Your task to perform on an android device: turn off smart reply in the gmail app Image 0: 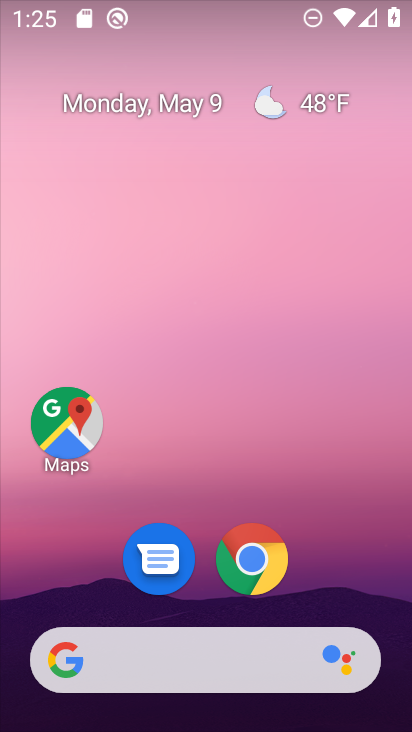
Step 0: click (212, 82)
Your task to perform on an android device: turn off smart reply in the gmail app Image 1: 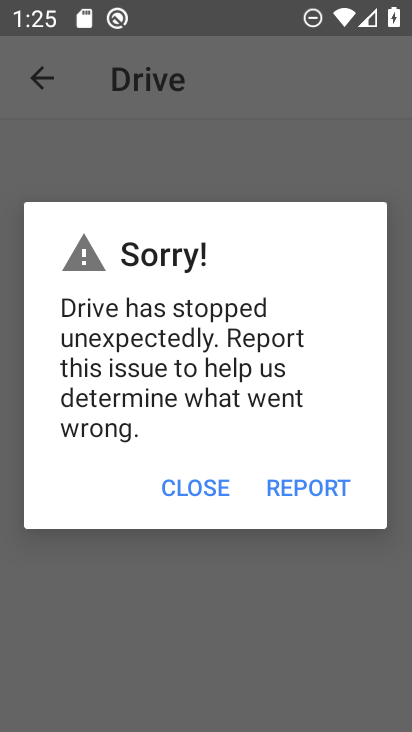
Step 1: click (173, 492)
Your task to perform on an android device: turn off smart reply in the gmail app Image 2: 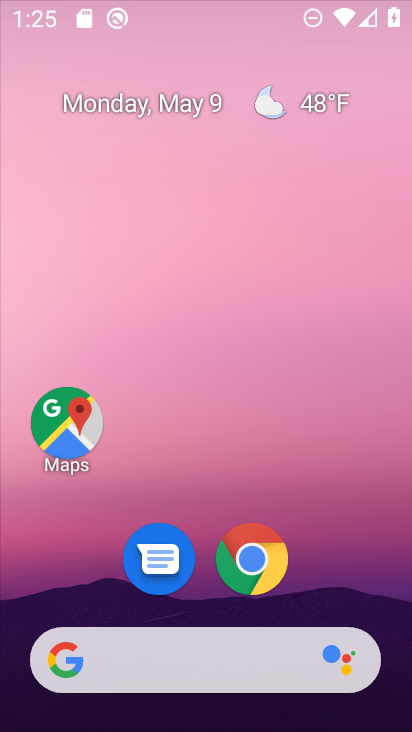
Step 2: drag from (192, 584) to (293, 219)
Your task to perform on an android device: turn off smart reply in the gmail app Image 3: 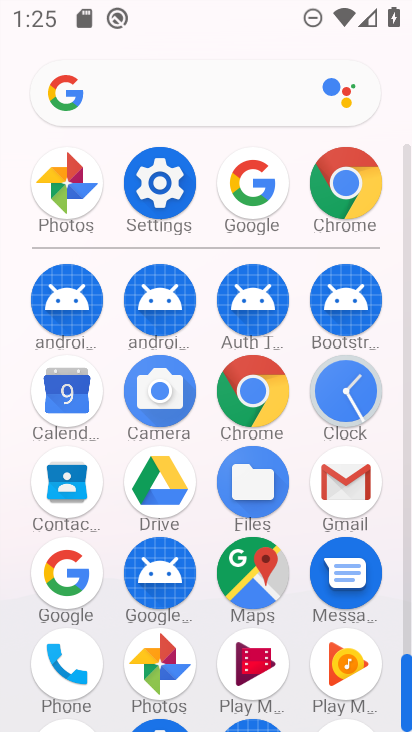
Step 3: drag from (204, 702) to (211, 315)
Your task to perform on an android device: turn off smart reply in the gmail app Image 4: 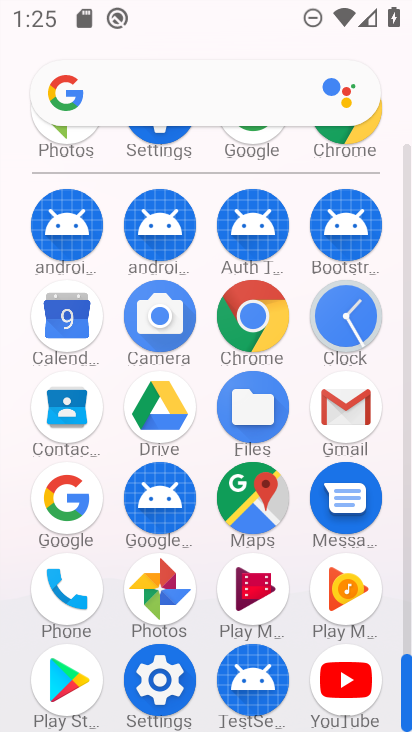
Step 4: drag from (211, 640) to (210, 369)
Your task to perform on an android device: turn off smart reply in the gmail app Image 5: 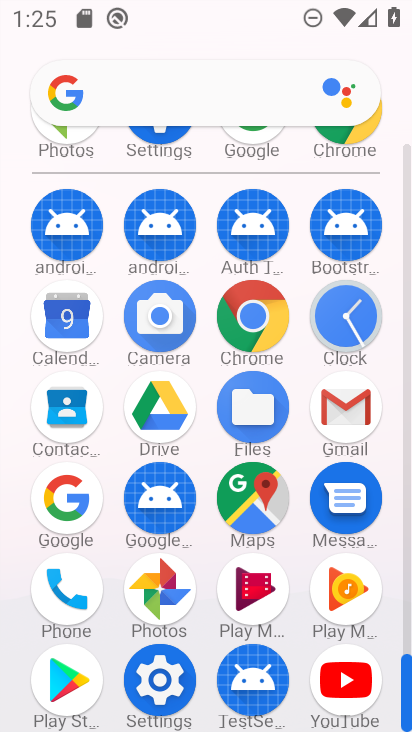
Step 5: click (345, 396)
Your task to perform on an android device: turn off smart reply in the gmail app Image 6: 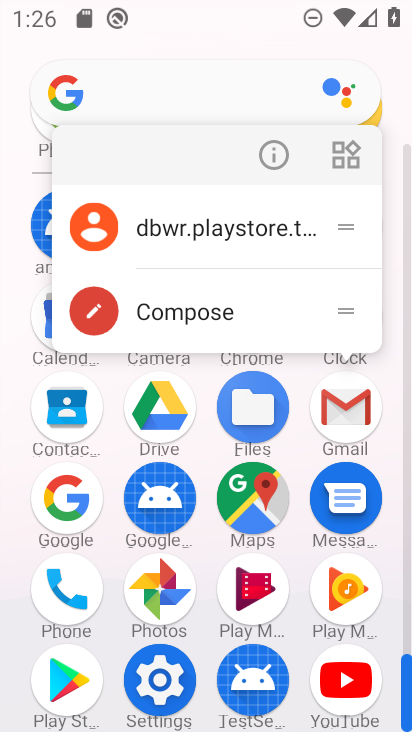
Step 6: click (272, 158)
Your task to perform on an android device: turn off smart reply in the gmail app Image 7: 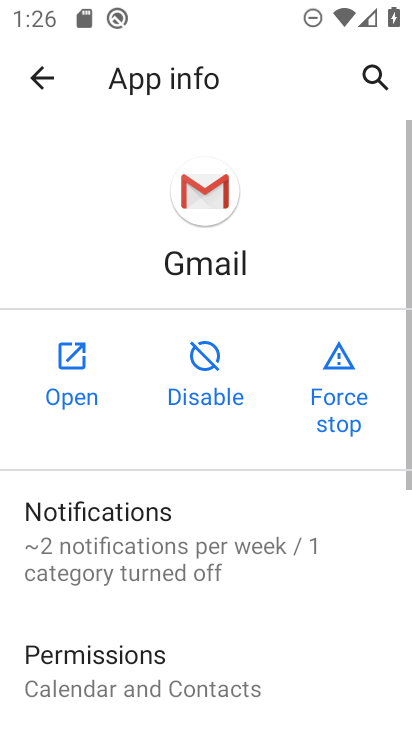
Step 7: click (67, 384)
Your task to perform on an android device: turn off smart reply in the gmail app Image 8: 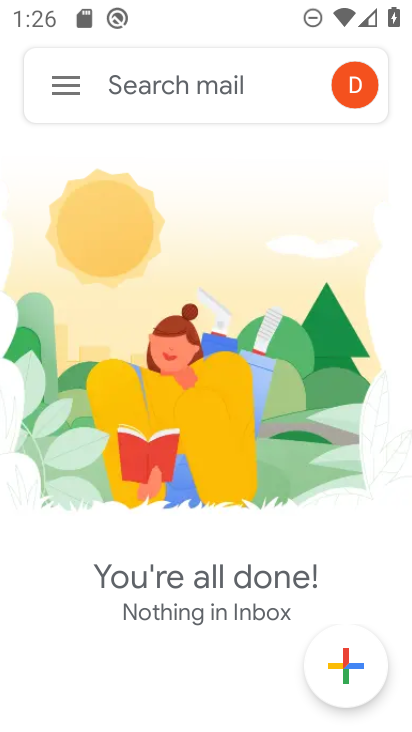
Step 8: drag from (213, 615) to (206, 398)
Your task to perform on an android device: turn off smart reply in the gmail app Image 9: 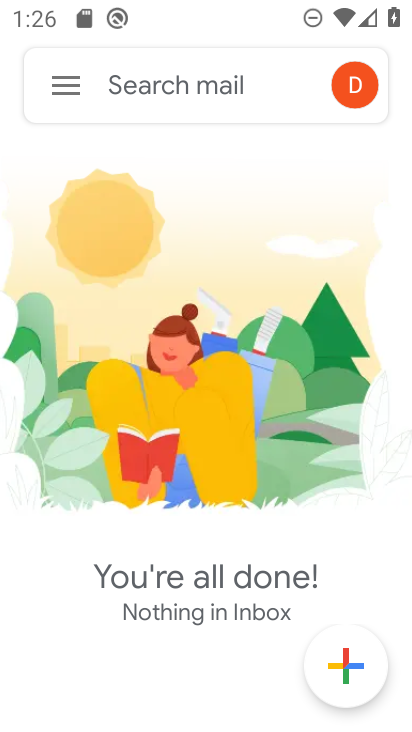
Step 9: drag from (179, 572) to (188, 305)
Your task to perform on an android device: turn off smart reply in the gmail app Image 10: 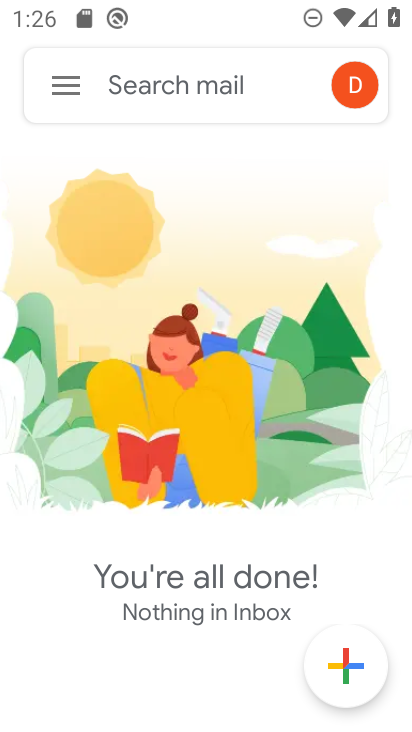
Step 10: drag from (227, 592) to (229, 491)
Your task to perform on an android device: turn off smart reply in the gmail app Image 11: 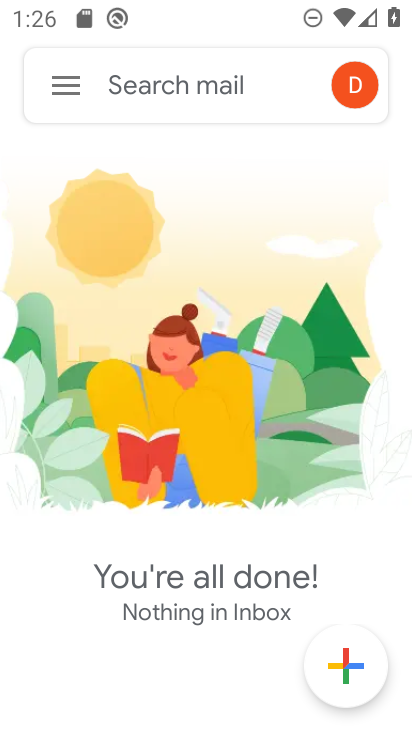
Step 11: click (56, 84)
Your task to perform on an android device: turn off smart reply in the gmail app Image 12: 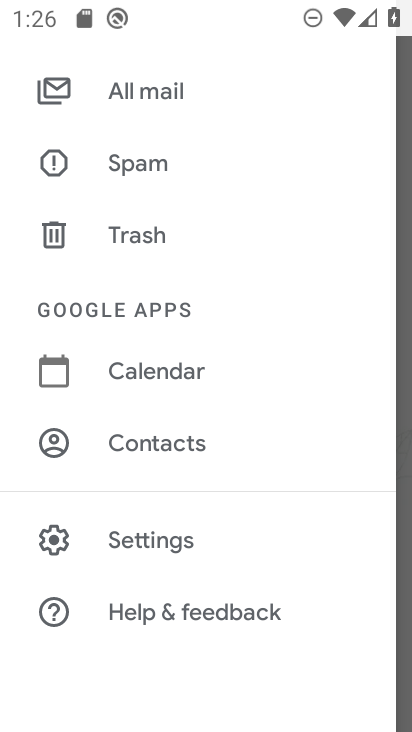
Step 12: click (146, 561)
Your task to perform on an android device: turn off smart reply in the gmail app Image 13: 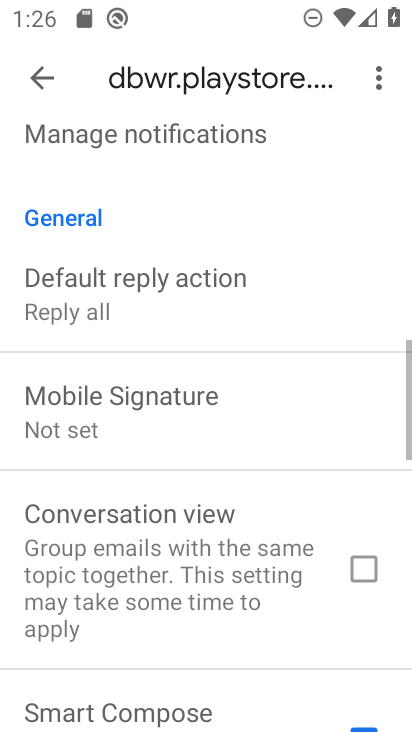
Step 13: drag from (172, 645) to (263, 210)
Your task to perform on an android device: turn off smart reply in the gmail app Image 14: 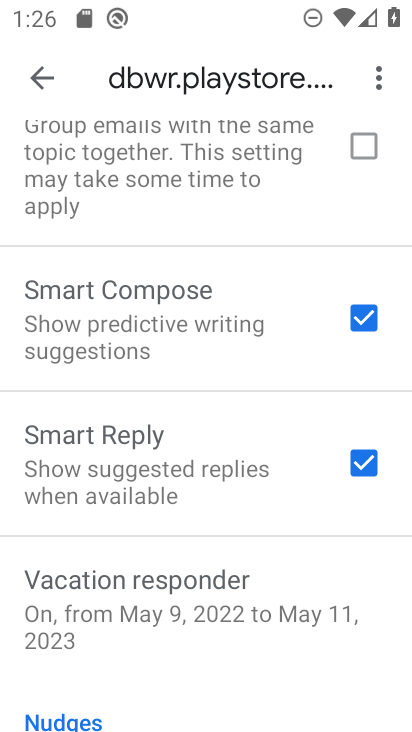
Step 14: drag from (217, 528) to (259, 331)
Your task to perform on an android device: turn off smart reply in the gmail app Image 15: 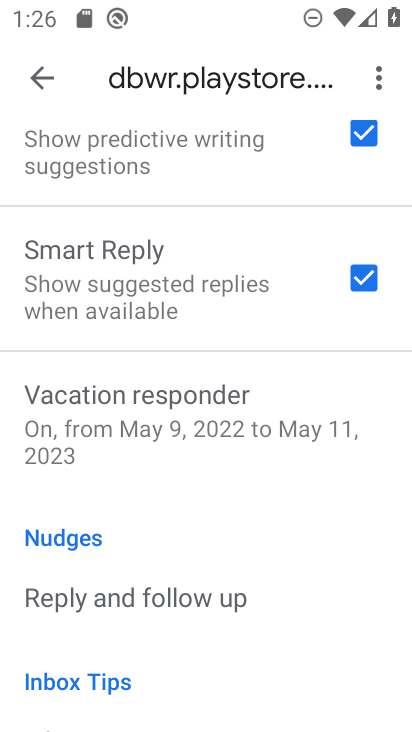
Step 15: click (359, 287)
Your task to perform on an android device: turn off smart reply in the gmail app Image 16: 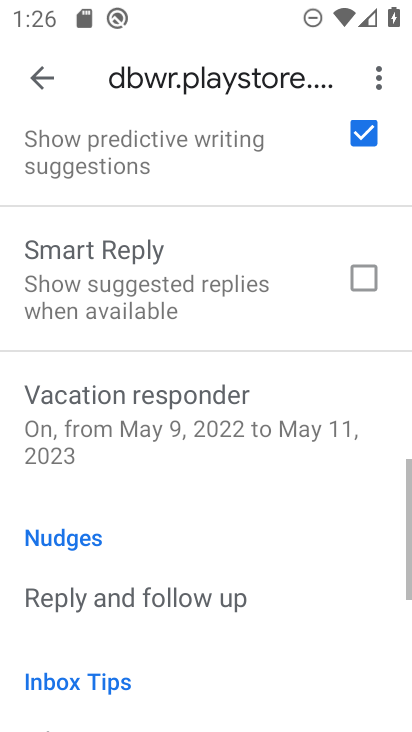
Step 16: task complete